Your task to perform on an android device: Search for usb-a to usb-b on bestbuy, select the first entry, and add it to the cart. Image 0: 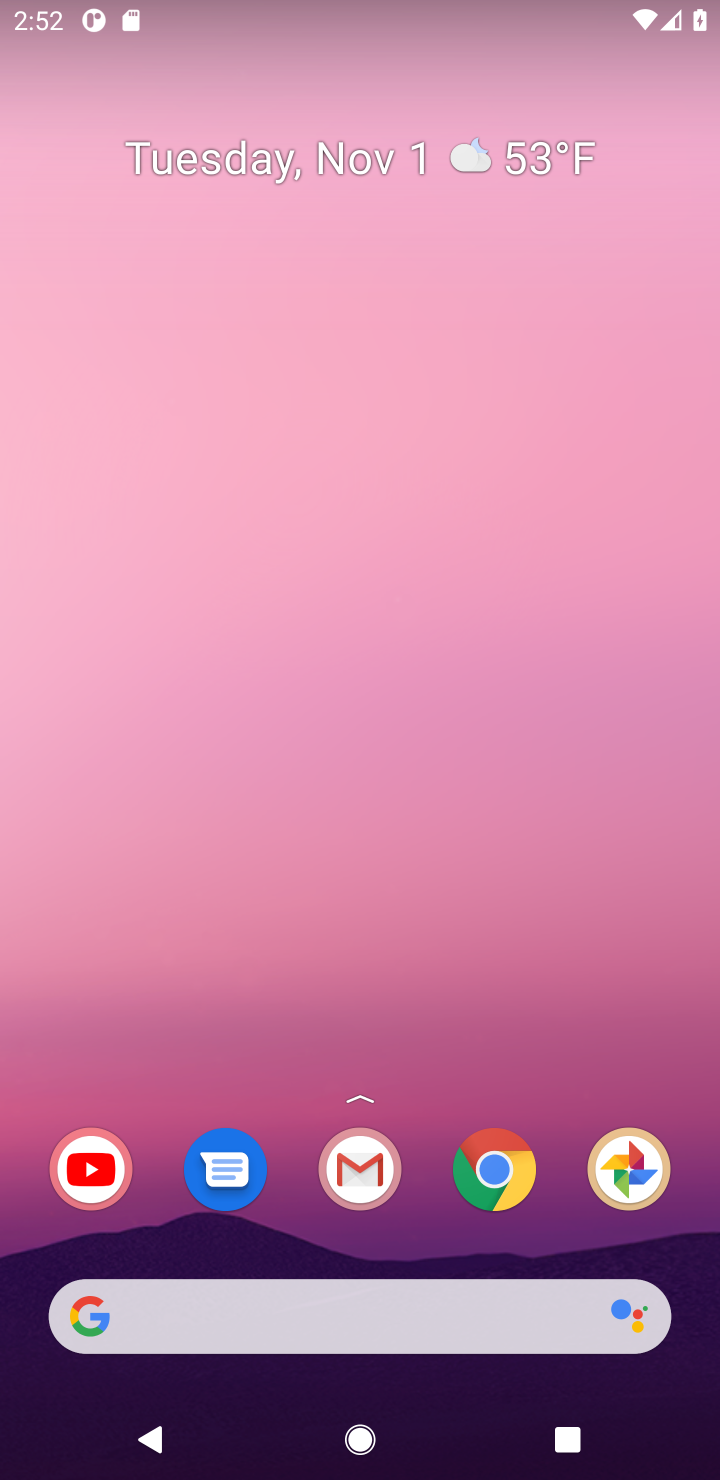
Step 0: drag from (473, 305) to (491, 92)
Your task to perform on an android device: Search for usb-a to usb-b on bestbuy, select the first entry, and add it to the cart. Image 1: 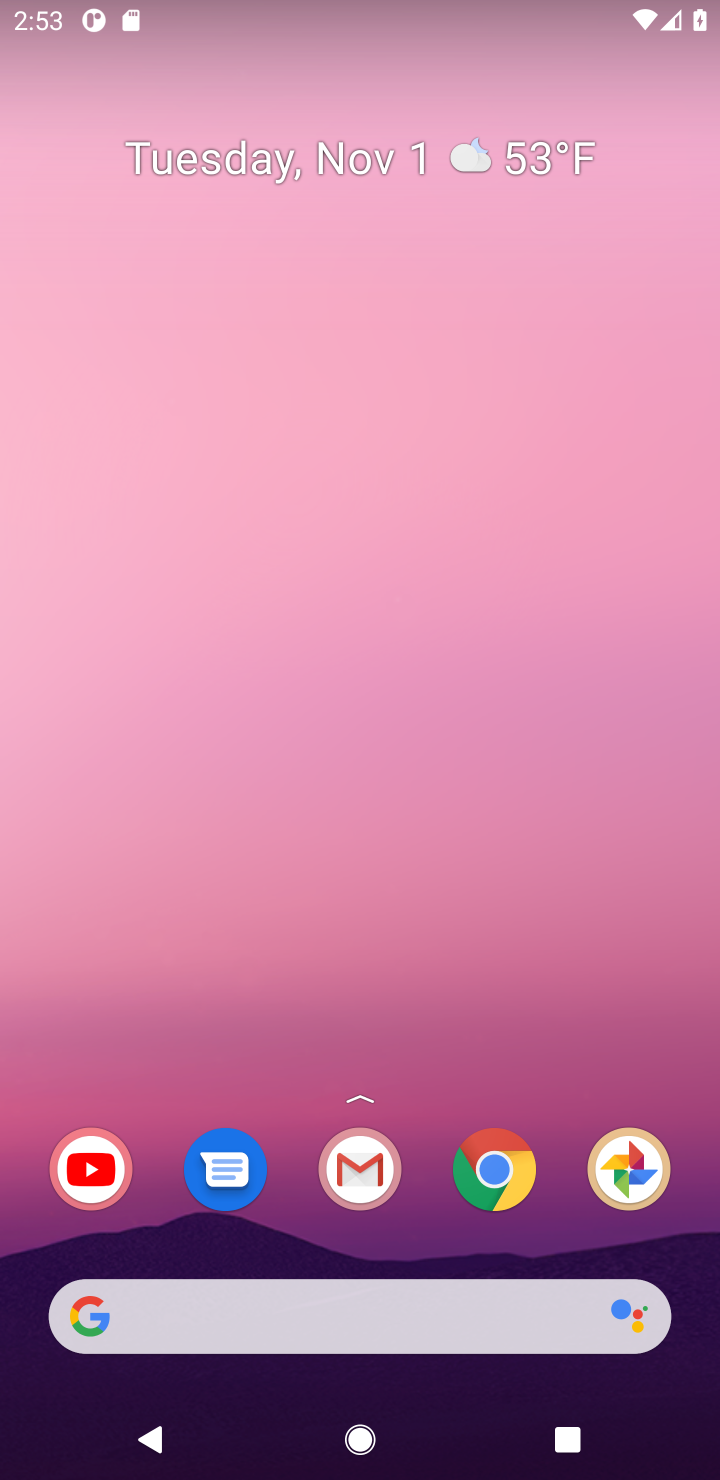
Step 1: drag from (416, 1102) to (458, 99)
Your task to perform on an android device: Search for usb-a to usb-b on bestbuy, select the first entry, and add it to the cart. Image 2: 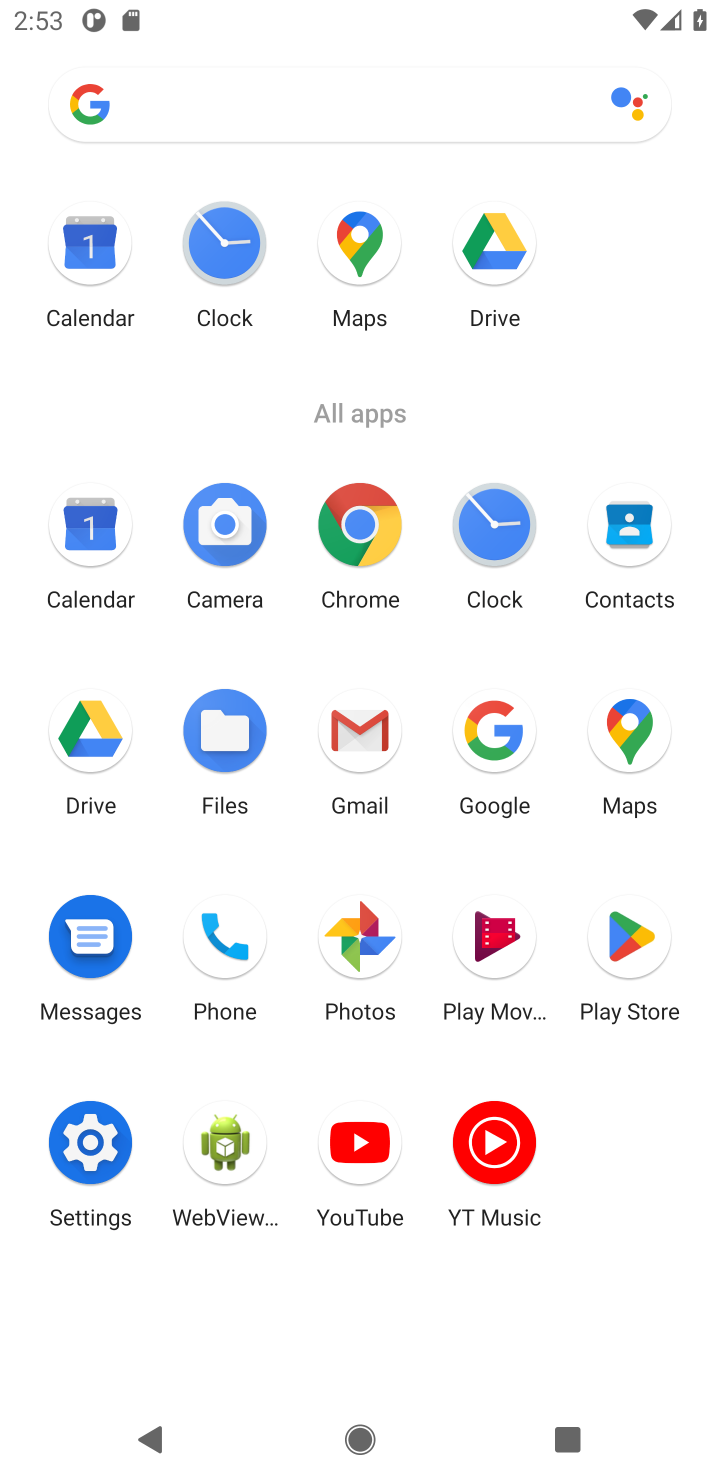
Step 2: click (354, 519)
Your task to perform on an android device: Search for usb-a to usb-b on bestbuy, select the first entry, and add it to the cart. Image 3: 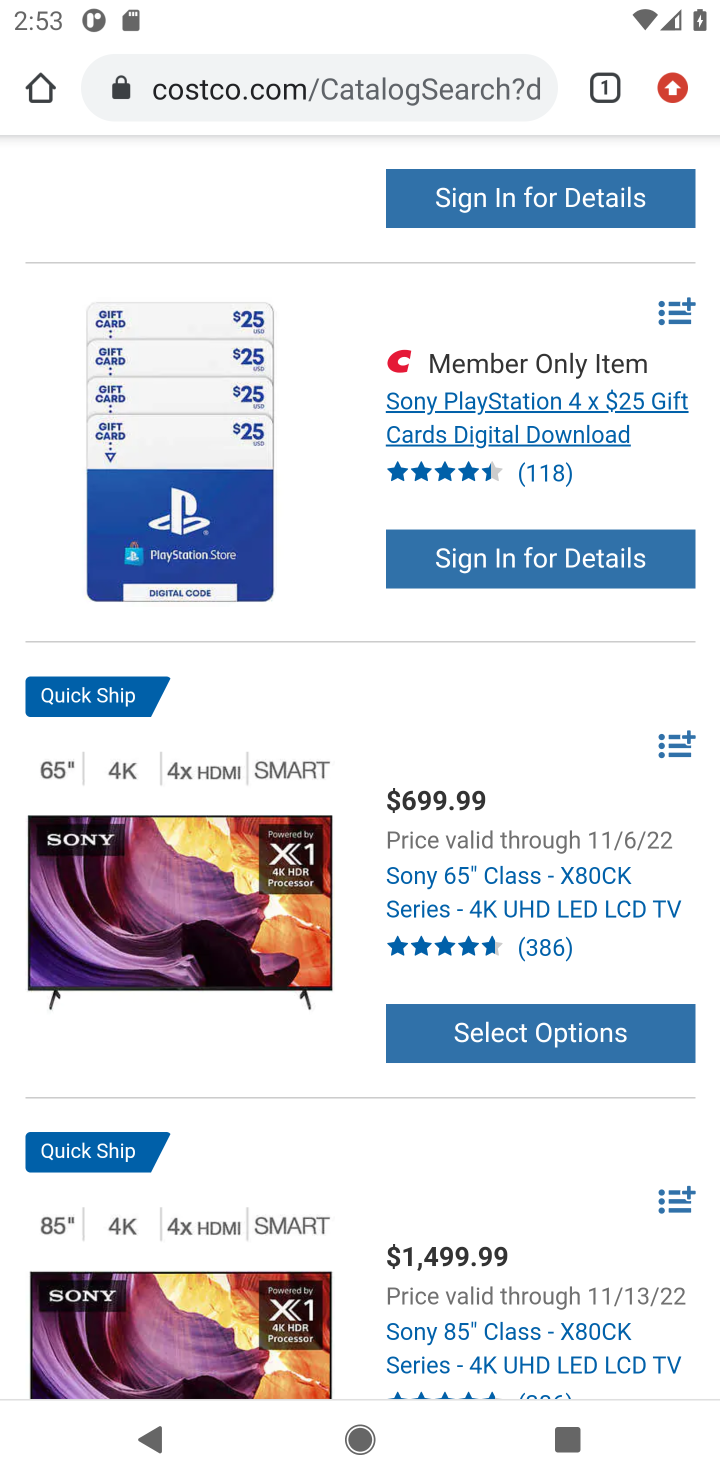
Step 3: click (274, 83)
Your task to perform on an android device: Search for usb-a to usb-b on bestbuy, select the first entry, and add it to the cart. Image 4: 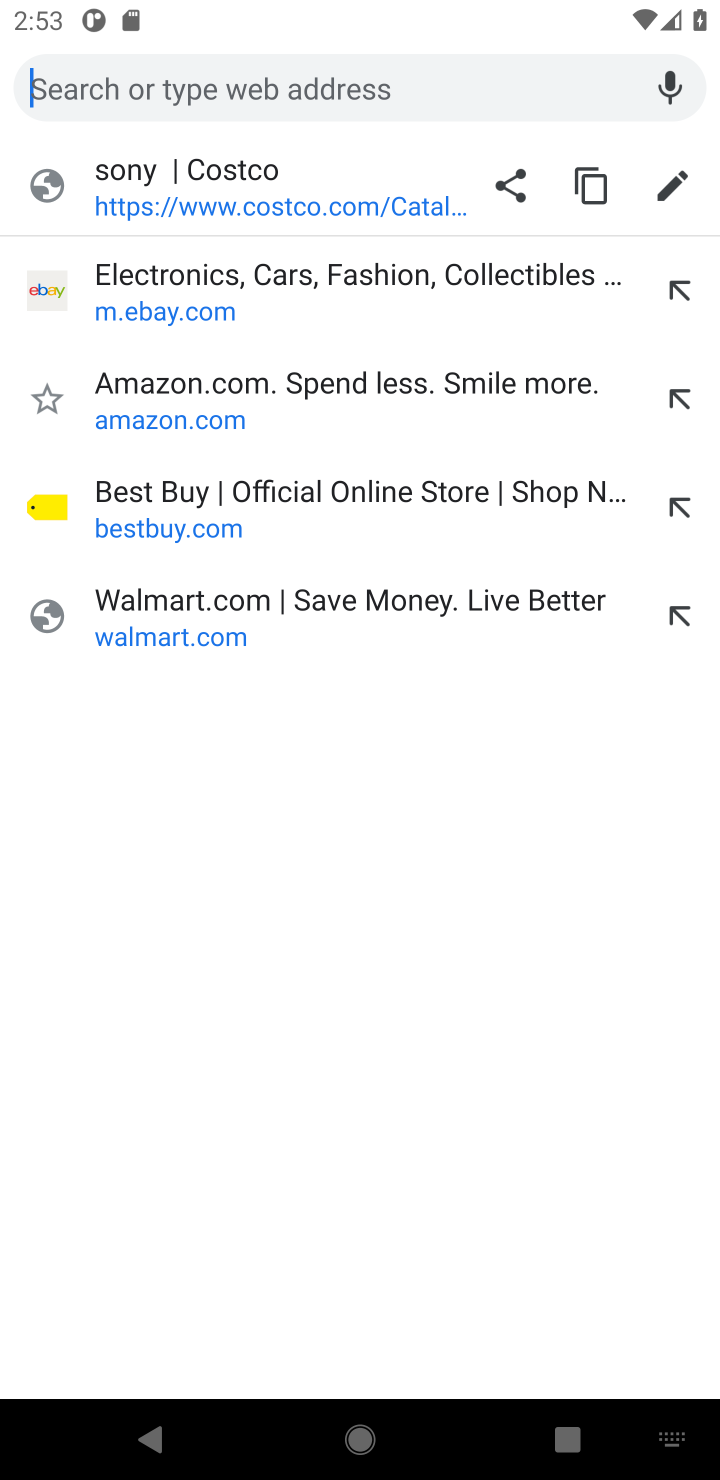
Step 4: type "bestbuy"
Your task to perform on an android device: Search for usb-a to usb-b on bestbuy, select the first entry, and add it to the cart. Image 5: 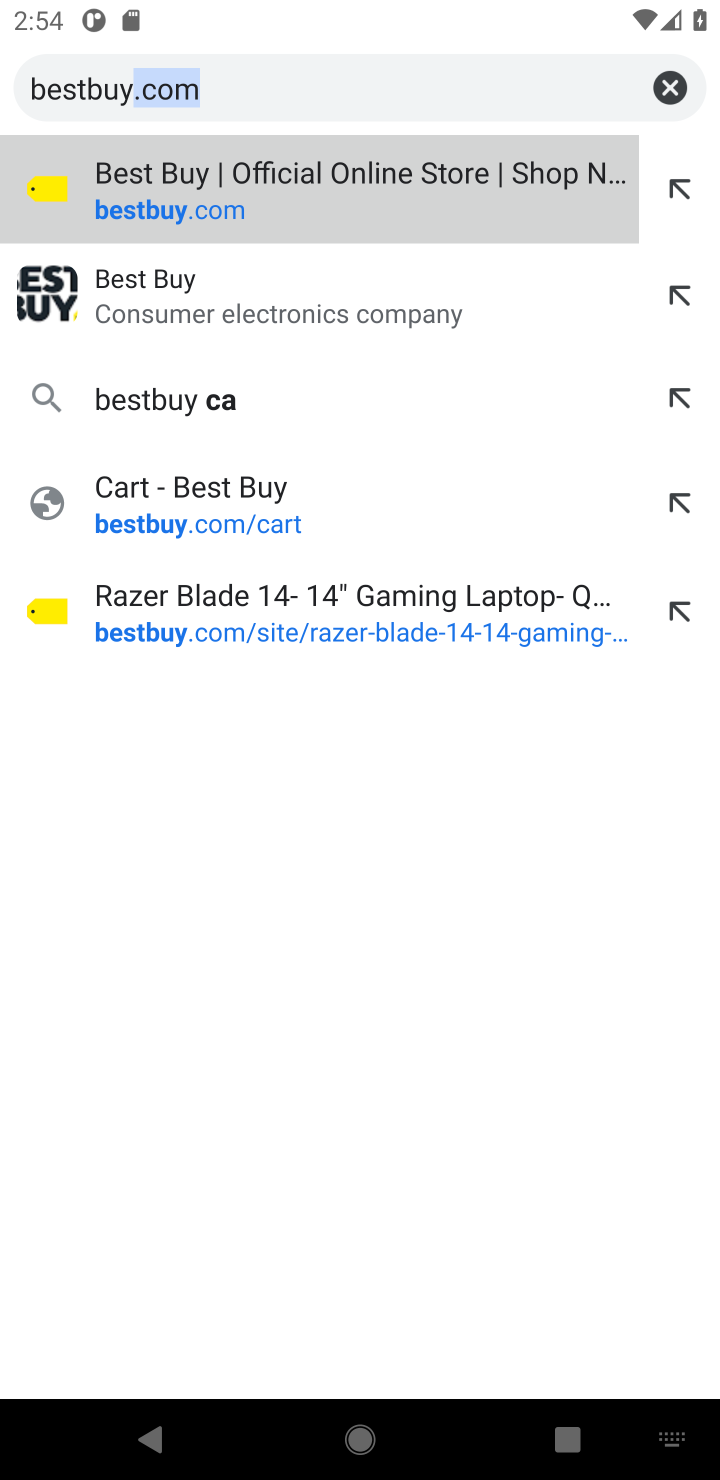
Step 5: click (280, 200)
Your task to perform on an android device: Search for usb-a to usb-b on bestbuy, select the first entry, and add it to the cart. Image 6: 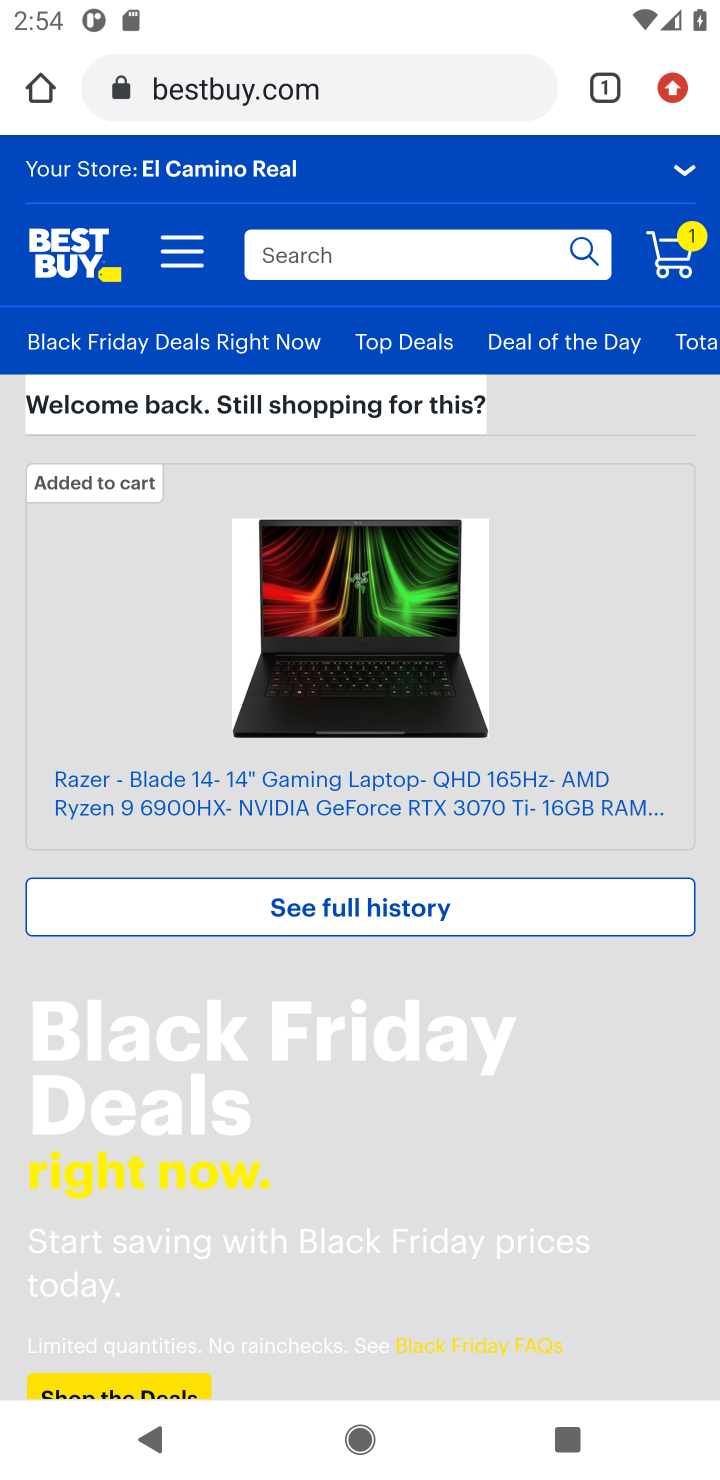
Step 6: click (326, 252)
Your task to perform on an android device: Search for usb-a to usb-b on bestbuy, select the first entry, and add it to the cart. Image 7: 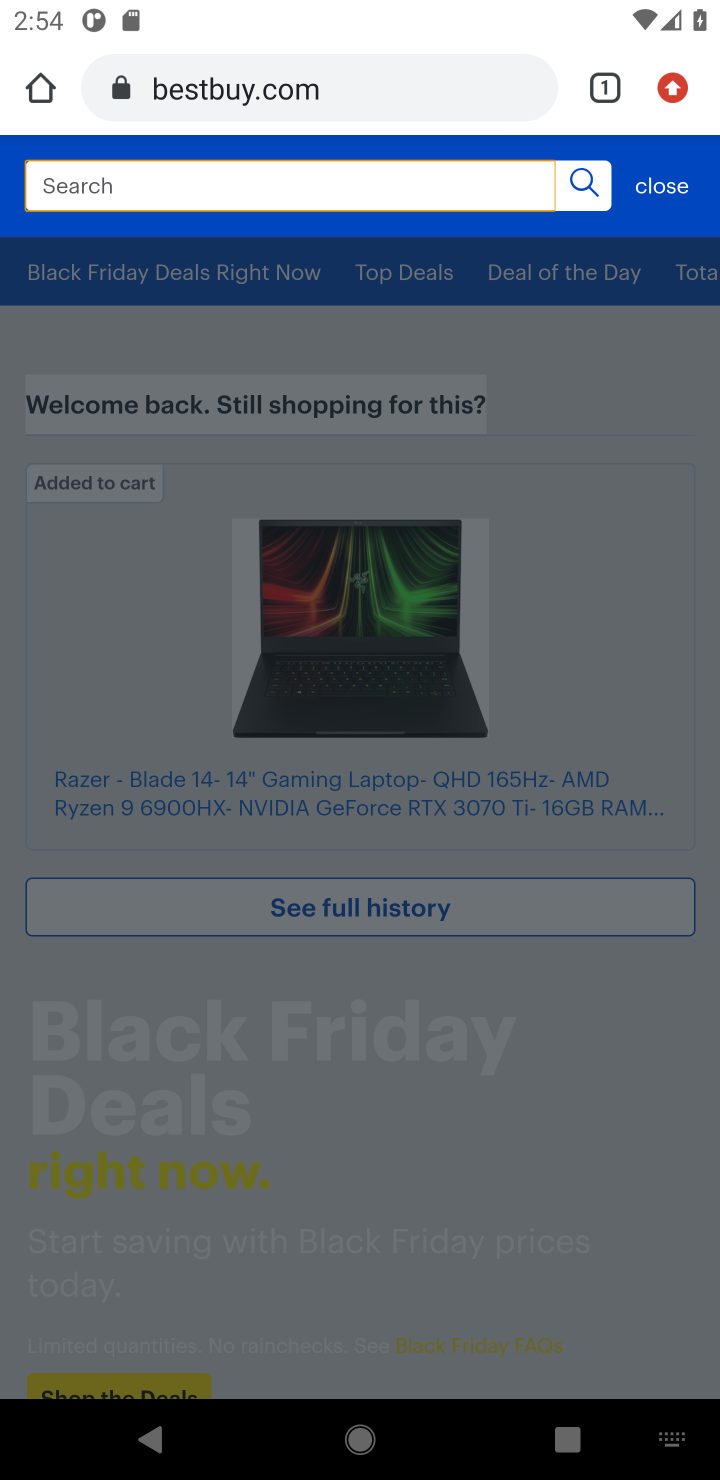
Step 7: type "usb-a to usb-b"
Your task to perform on an android device: Search for usb-a to usb-b on bestbuy, select the first entry, and add it to the cart. Image 8: 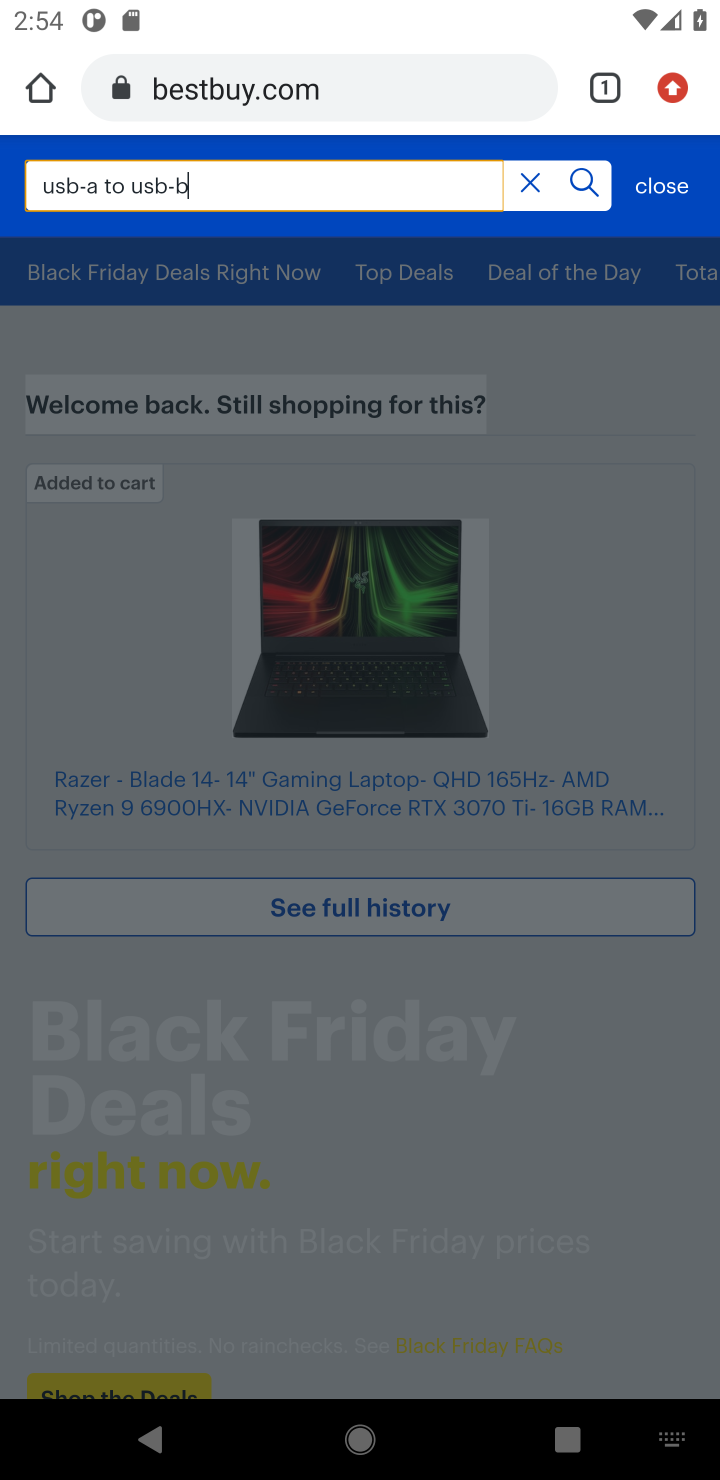
Step 8: click (592, 181)
Your task to perform on an android device: Search for usb-a to usb-b on bestbuy, select the first entry, and add it to the cart. Image 9: 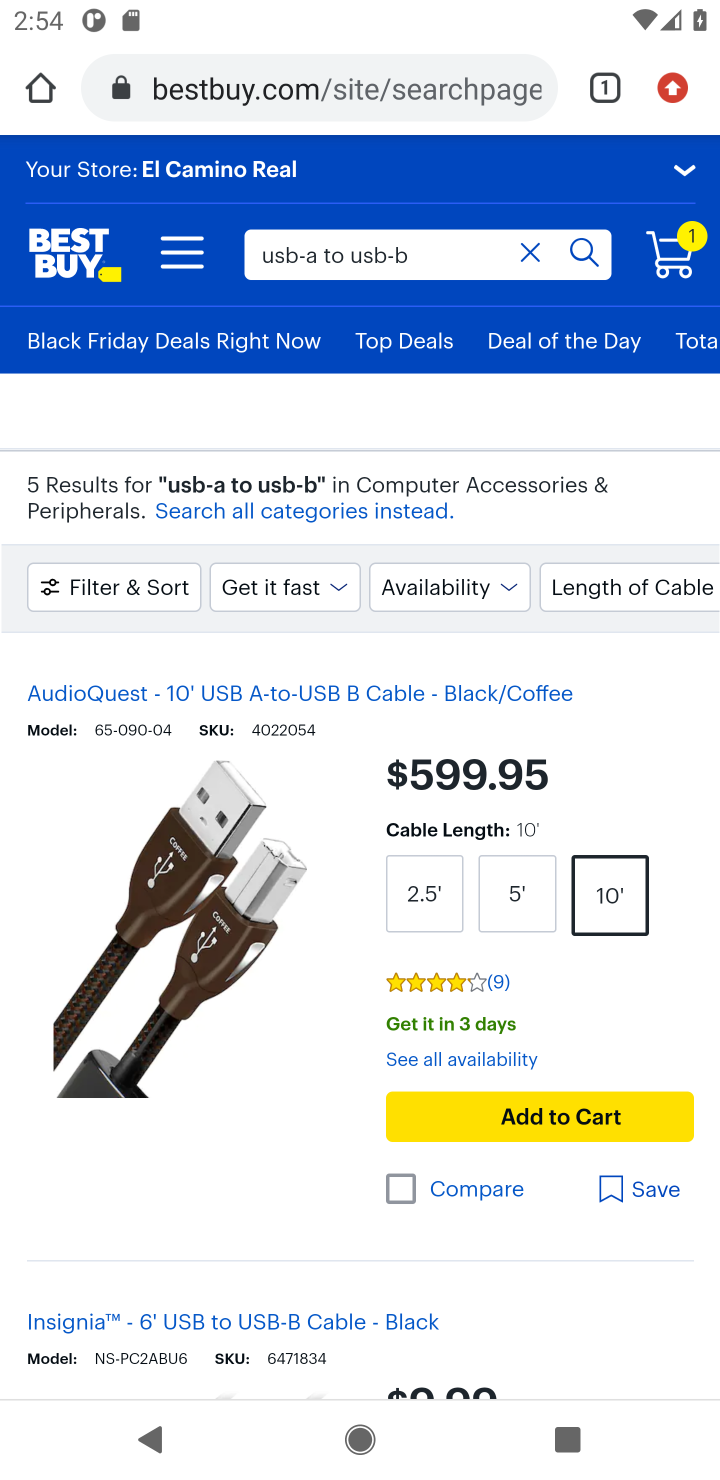
Step 9: click (257, 860)
Your task to perform on an android device: Search for usb-a to usb-b on bestbuy, select the first entry, and add it to the cart. Image 10: 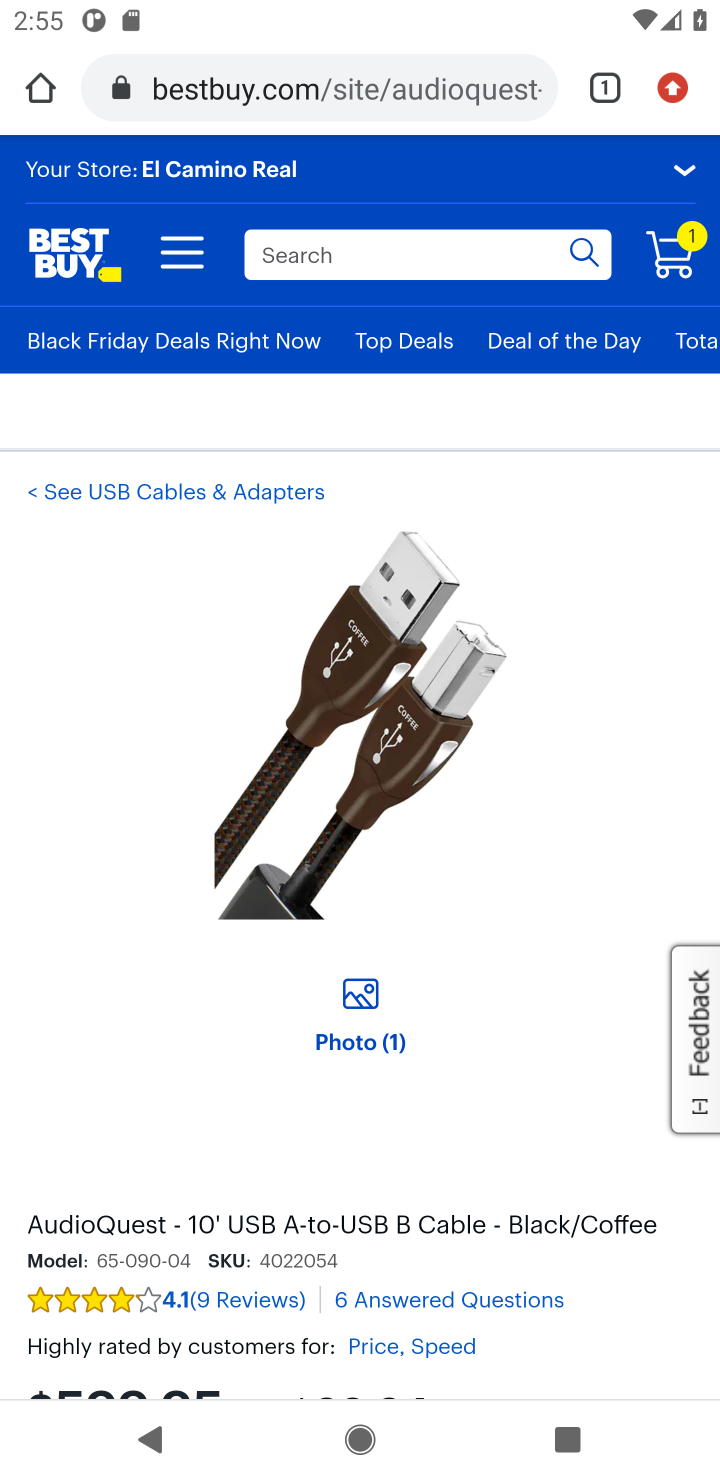
Step 10: drag from (371, 1249) to (442, 420)
Your task to perform on an android device: Search for usb-a to usb-b on bestbuy, select the first entry, and add it to the cart. Image 11: 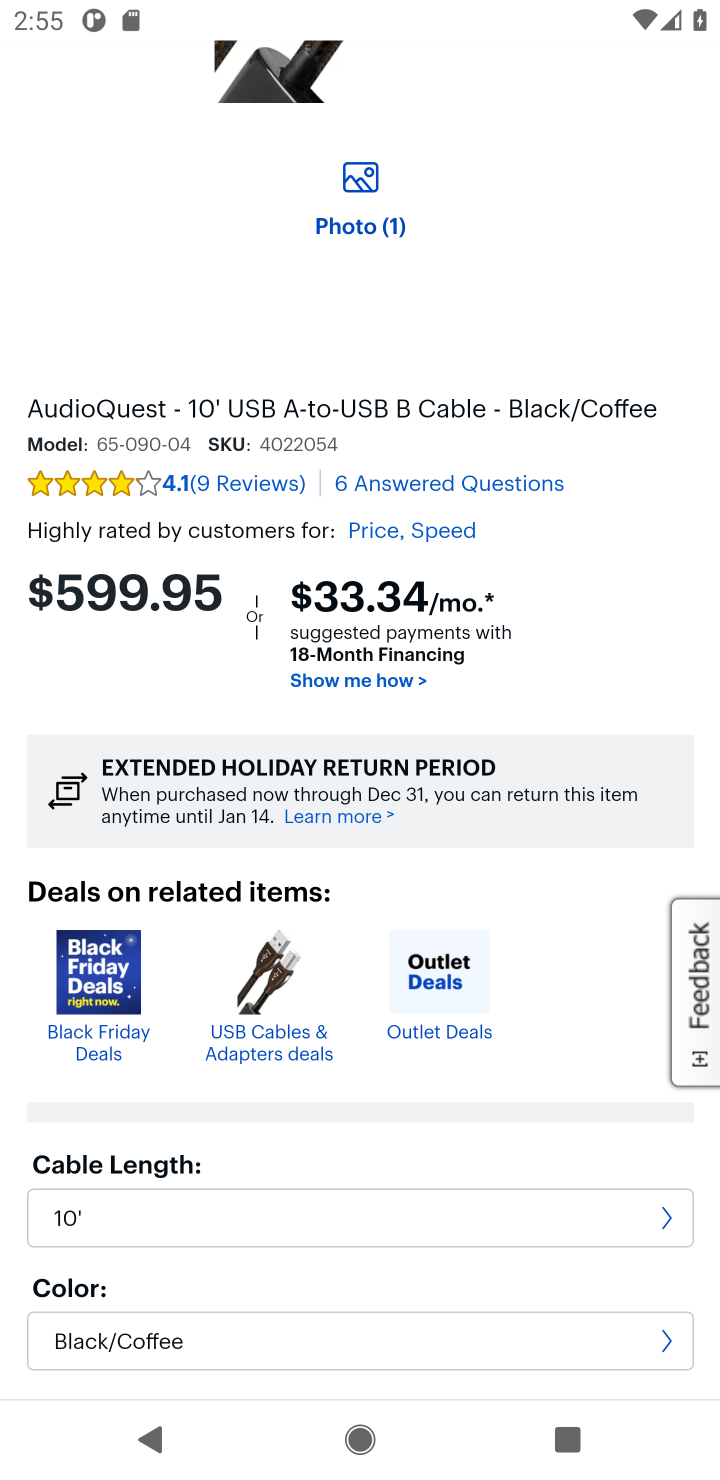
Step 11: drag from (340, 1121) to (419, 466)
Your task to perform on an android device: Search for usb-a to usb-b on bestbuy, select the first entry, and add it to the cart. Image 12: 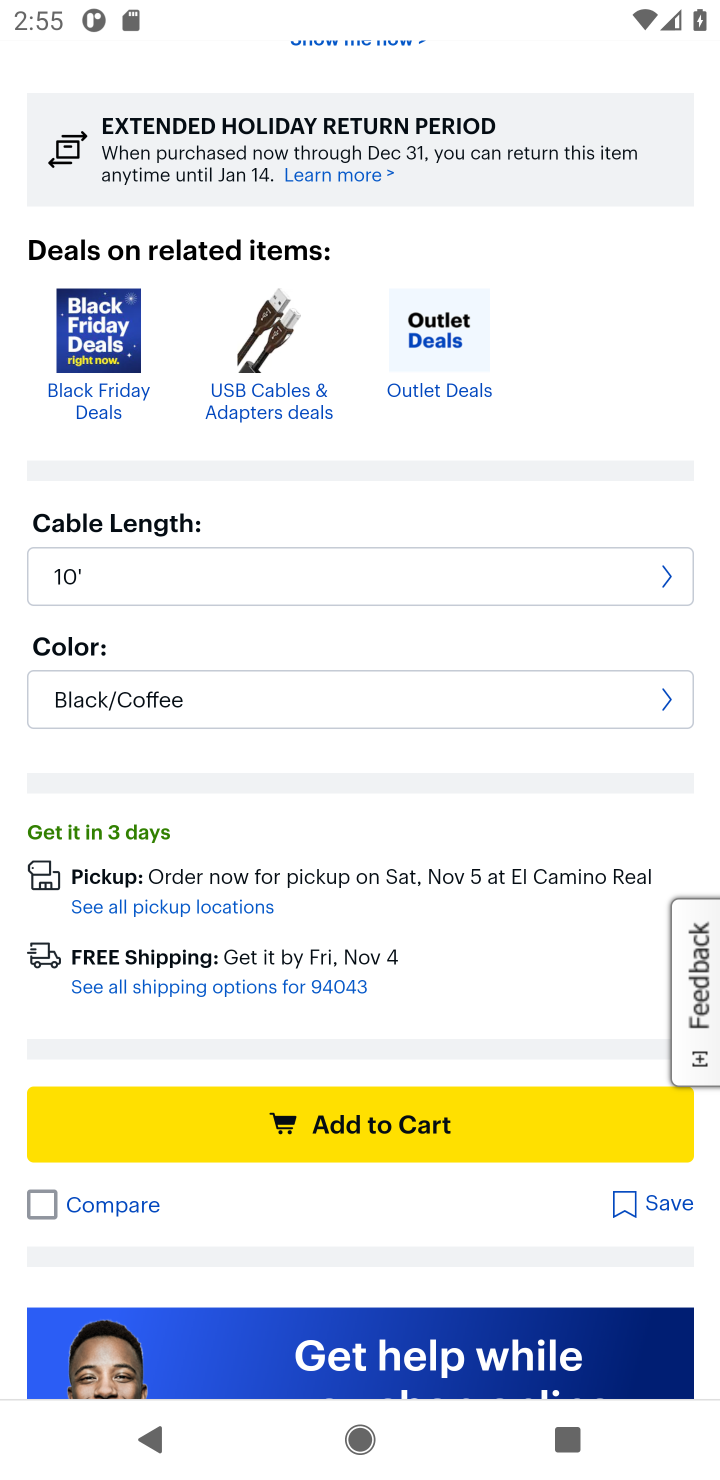
Step 12: drag from (340, 1287) to (406, 756)
Your task to perform on an android device: Search for usb-a to usb-b on bestbuy, select the first entry, and add it to the cart. Image 13: 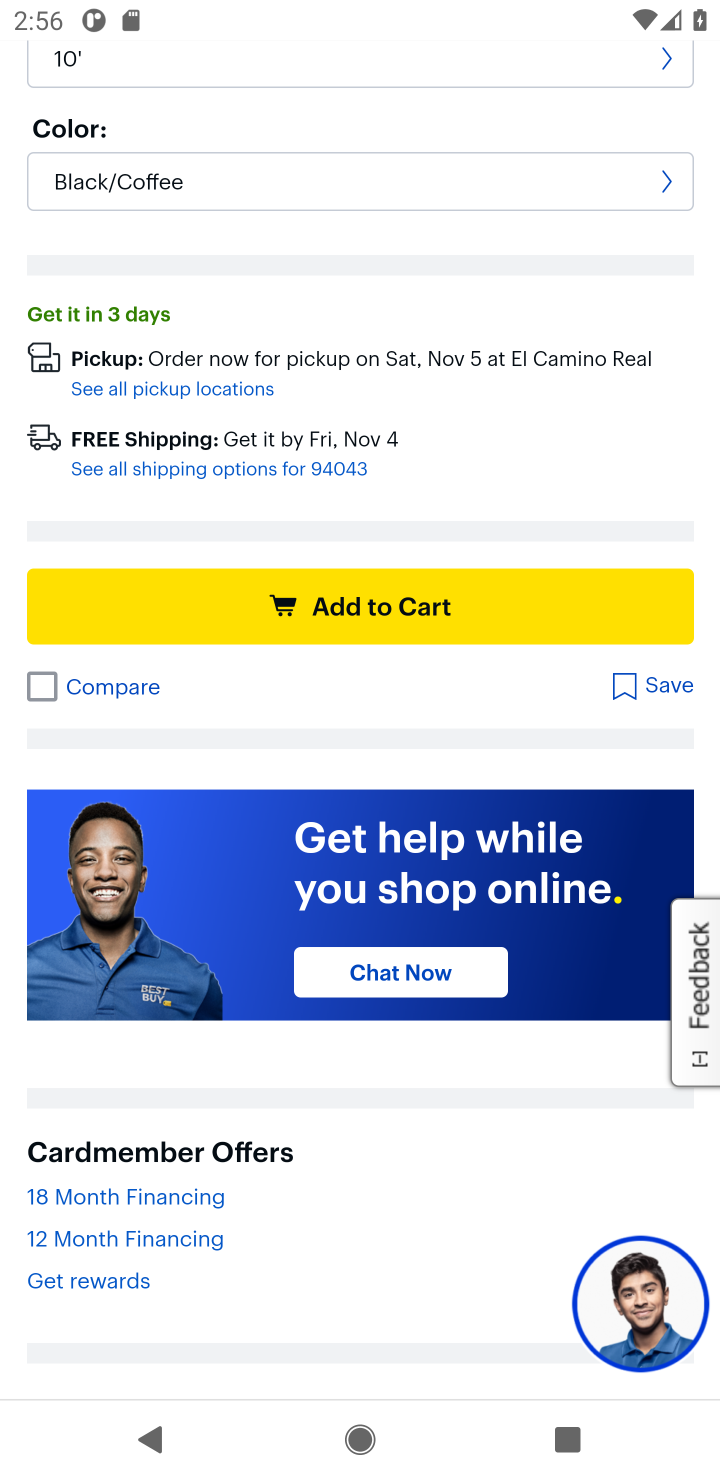
Step 13: click (355, 609)
Your task to perform on an android device: Search for usb-a to usb-b on bestbuy, select the first entry, and add it to the cart. Image 14: 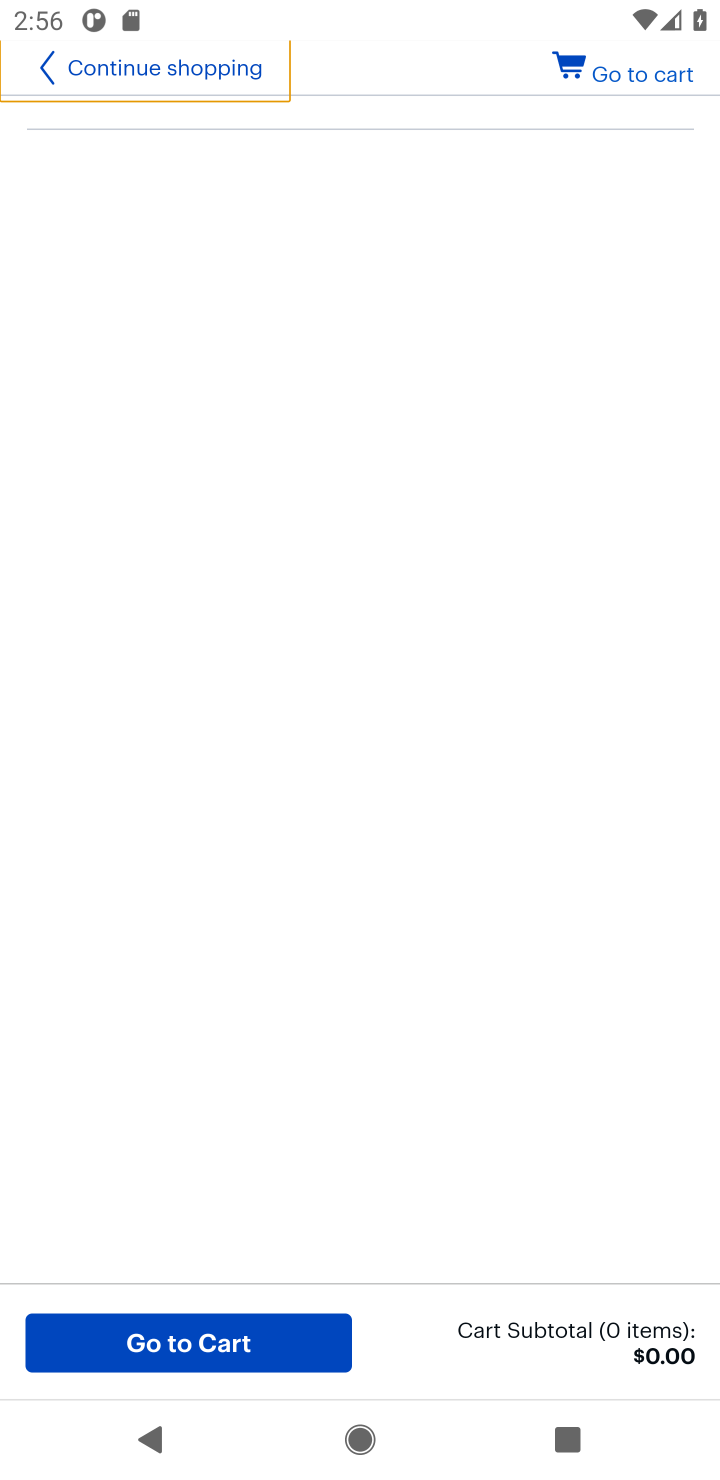
Step 14: click (678, 95)
Your task to perform on an android device: Search for usb-a to usb-b on bestbuy, select the first entry, and add it to the cart. Image 15: 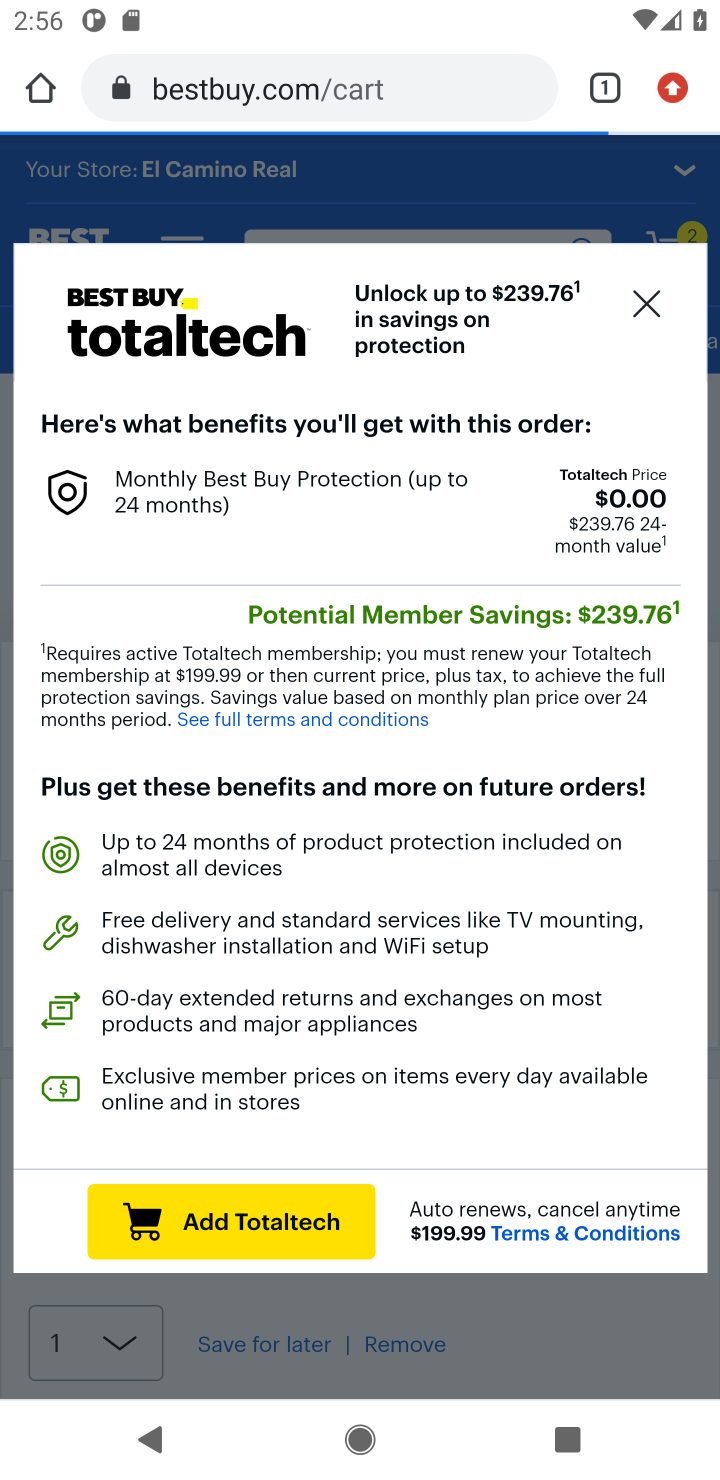
Step 15: click (266, 1223)
Your task to perform on an android device: Search for usb-a to usb-b on bestbuy, select the first entry, and add it to the cart. Image 16: 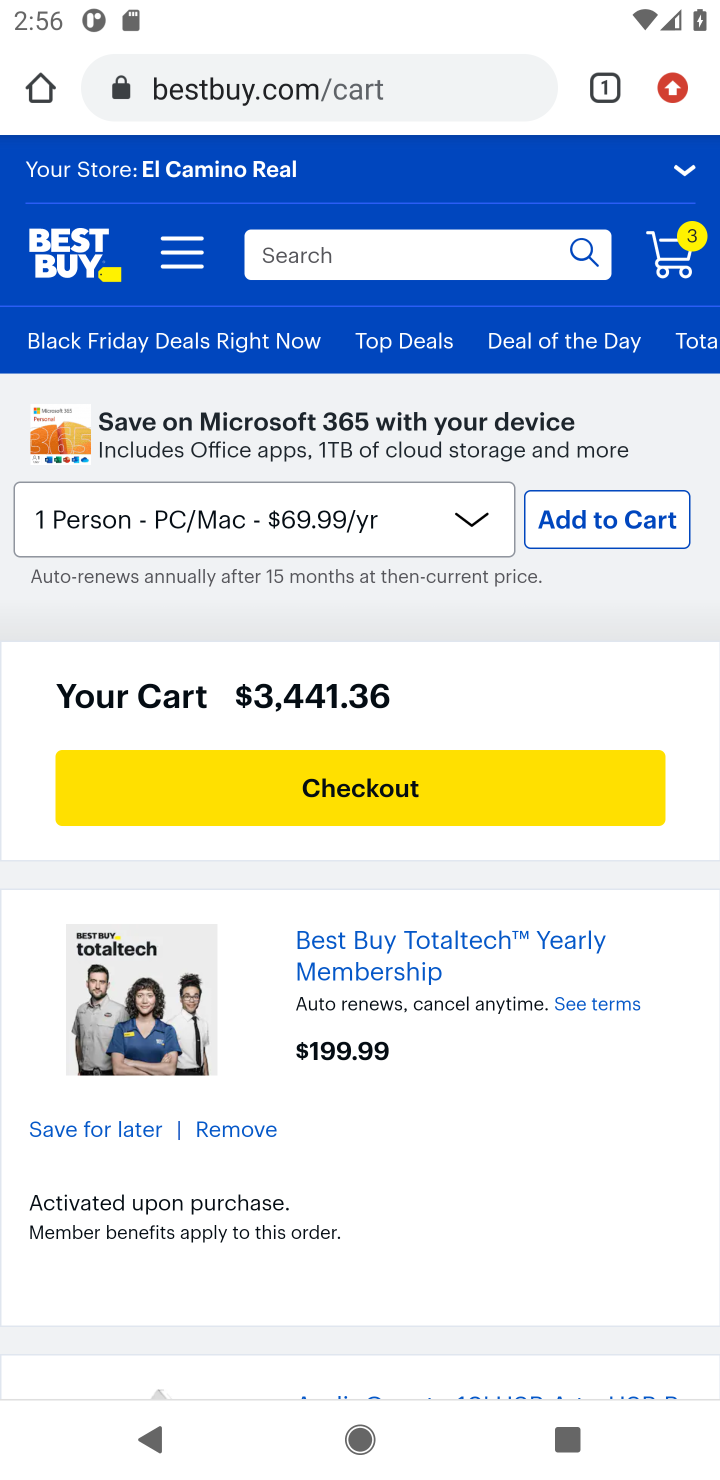
Step 16: click (352, 784)
Your task to perform on an android device: Search for usb-a to usb-b on bestbuy, select the first entry, and add it to the cart. Image 17: 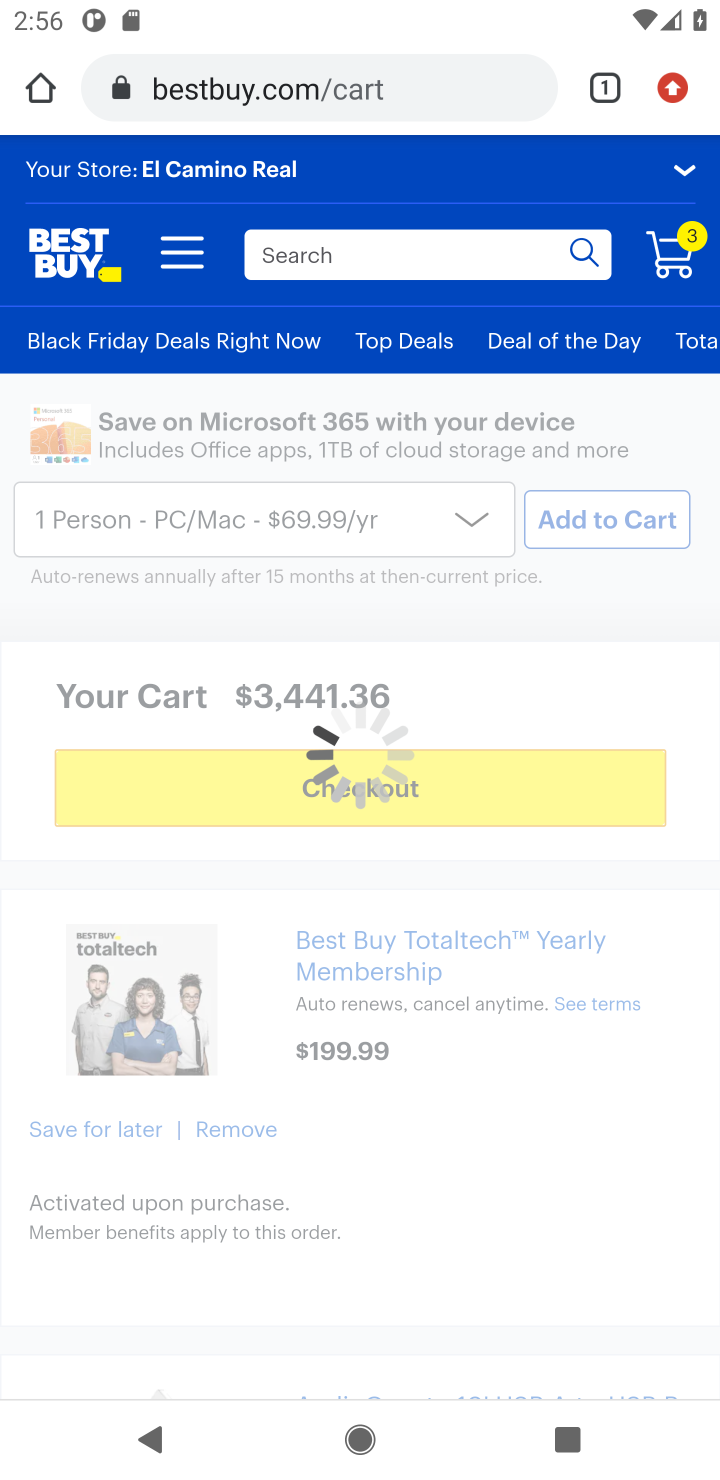
Step 17: task complete